Your task to perform on an android device: toggle sleep mode Image 0: 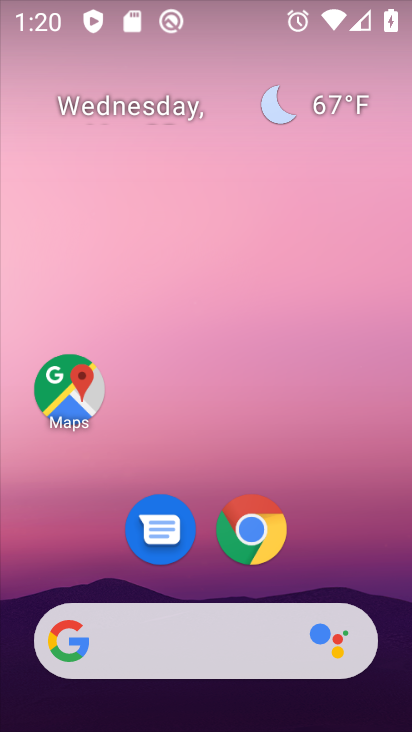
Step 0: drag from (324, 570) to (257, 147)
Your task to perform on an android device: toggle sleep mode Image 1: 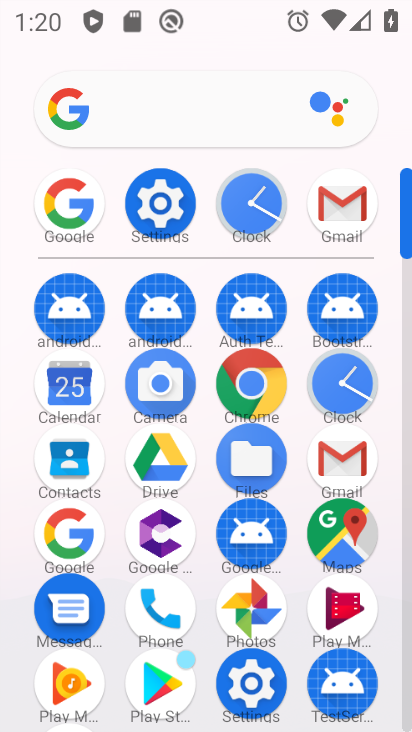
Step 1: click (160, 204)
Your task to perform on an android device: toggle sleep mode Image 2: 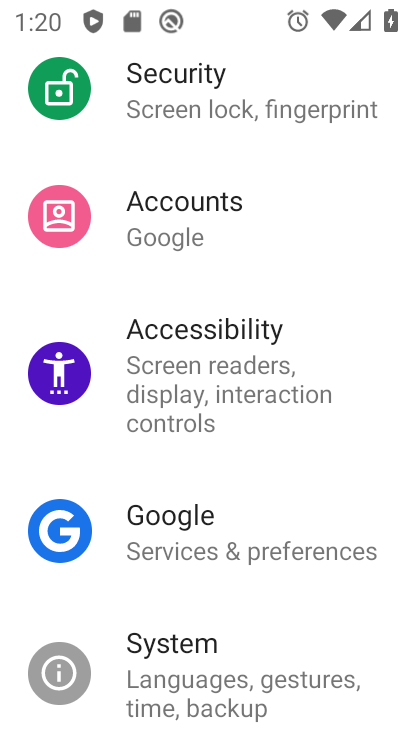
Step 2: drag from (195, 287) to (245, 461)
Your task to perform on an android device: toggle sleep mode Image 3: 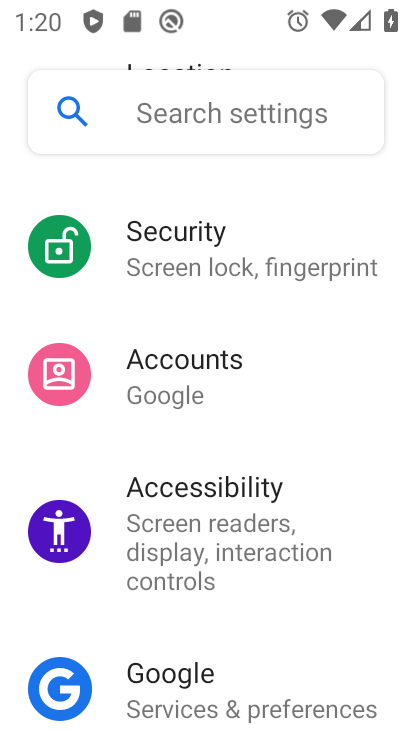
Step 3: drag from (217, 197) to (256, 361)
Your task to perform on an android device: toggle sleep mode Image 4: 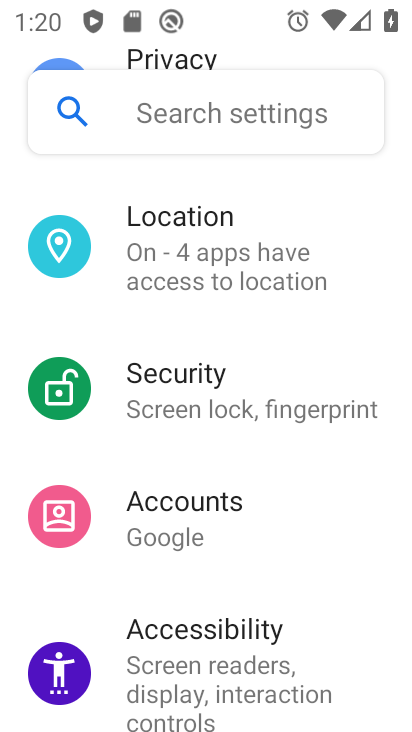
Step 4: drag from (228, 192) to (230, 394)
Your task to perform on an android device: toggle sleep mode Image 5: 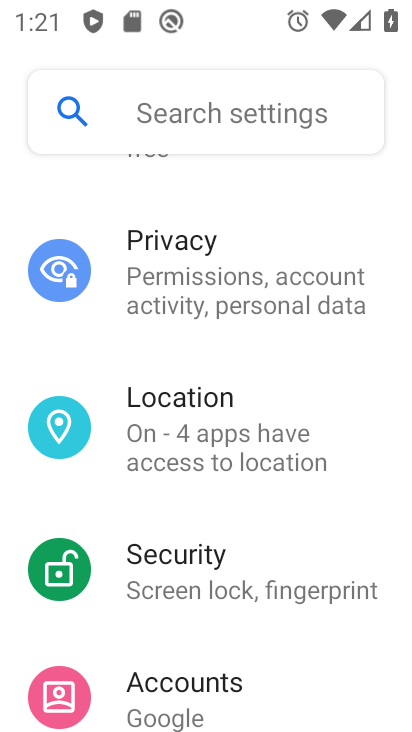
Step 5: drag from (200, 217) to (233, 374)
Your task to perform on an android device: toggle sleep mode Image 6: 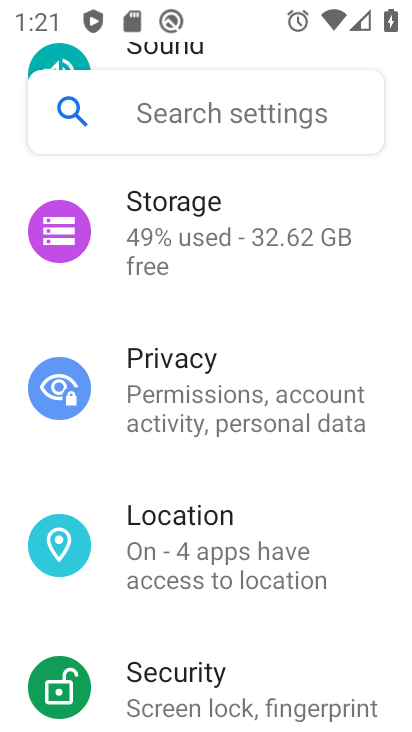
Step 6: drag from (207, 175) to (240, 320)
Your task to perform on an android device: toggle sleep mode Image 7: 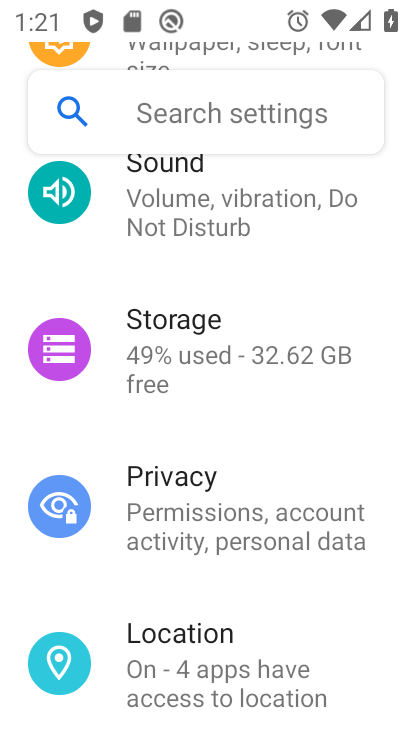
Step 7: drag from (245, 297) to (315, 492)
Your task to perform on an android device: toggle sleep mode Image 8: 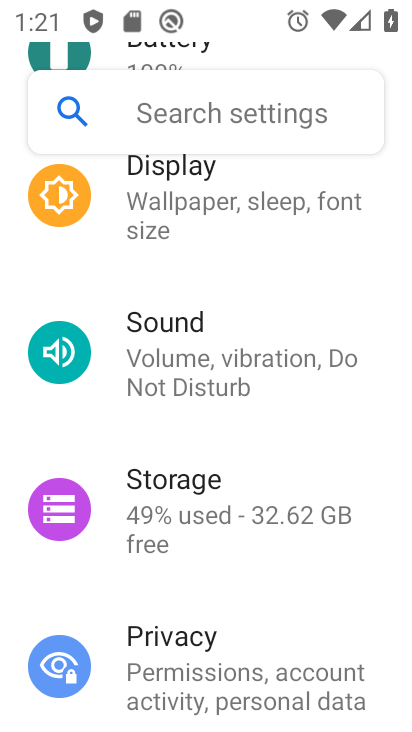
Step 8: drag from (274, 322) to (282, 474)
Your task to perform on an android device: toggle sleep mode Image 9: 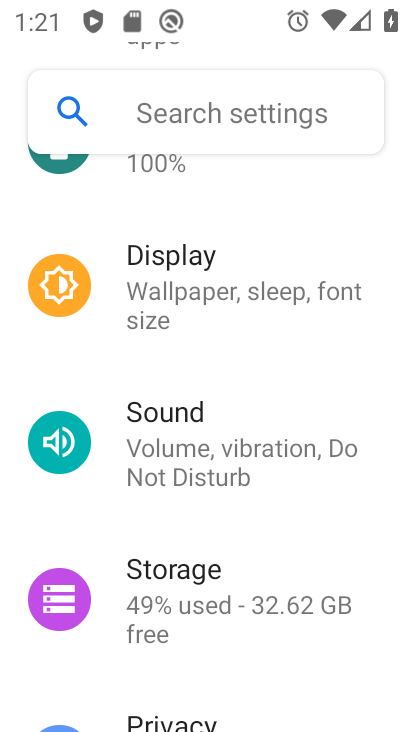
Step 9: click (243, 286)
Your task to perform on an android device: toggle sleep mode Image 10: 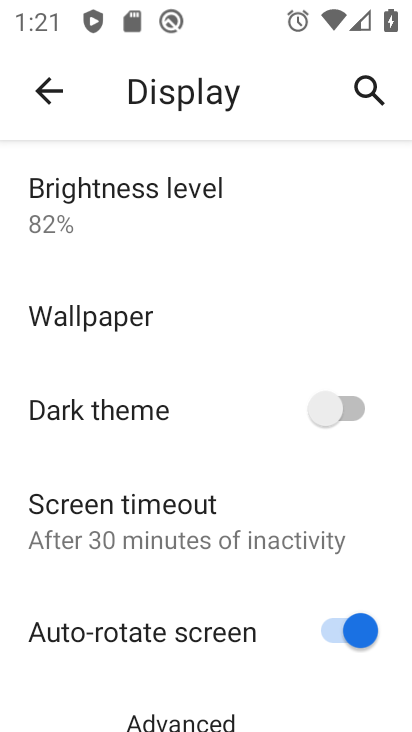
Step 10: drag from (96, 375) to (122, 262)
Your task to perform on an android device: toggle sleep mode Image 11: 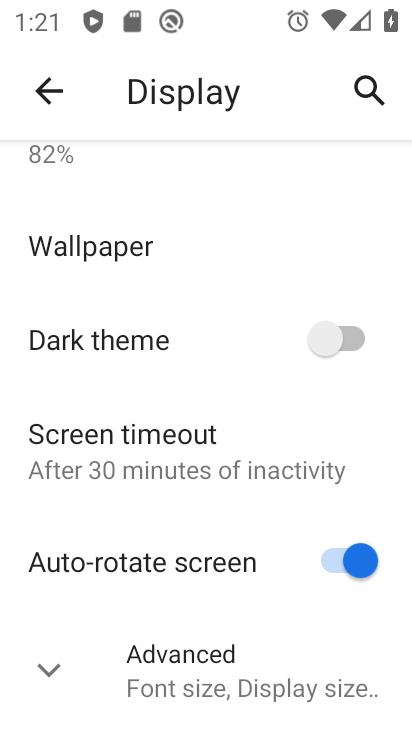
Step 11: drag from (125, 384) to (131, 285)
Your task to perform on an android device: toggle sleep mode Image 12: 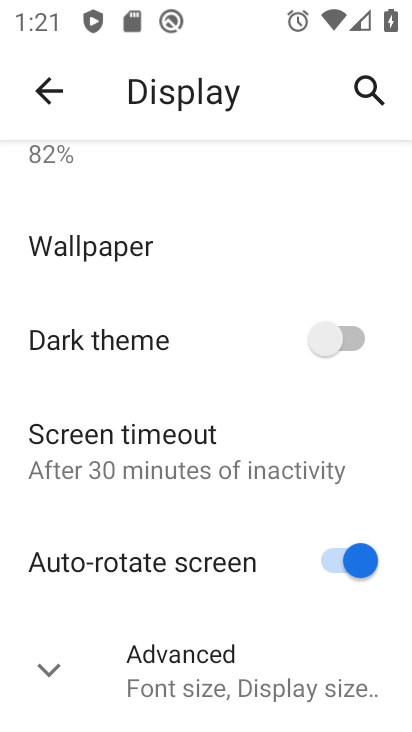
Step 12: click (166, 426)
Your task to perform on an android device: toggle sleep mode Image 13: 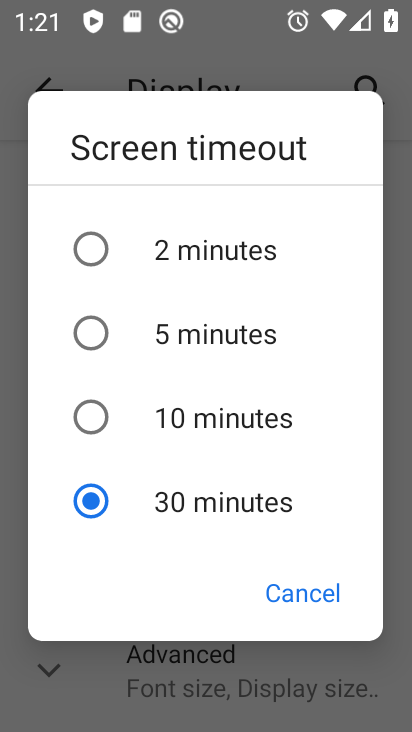
Step 13: click (287, 583)
Your task to perform on an android device: toggle sleep mode Image 14: 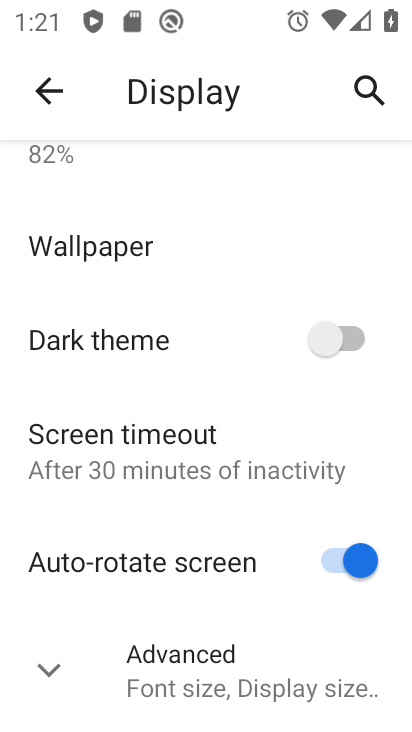
Step 14: drag from (205, 587) to (190, 416)
Your task to perform on an android device: toggle sleep mode Image 15: 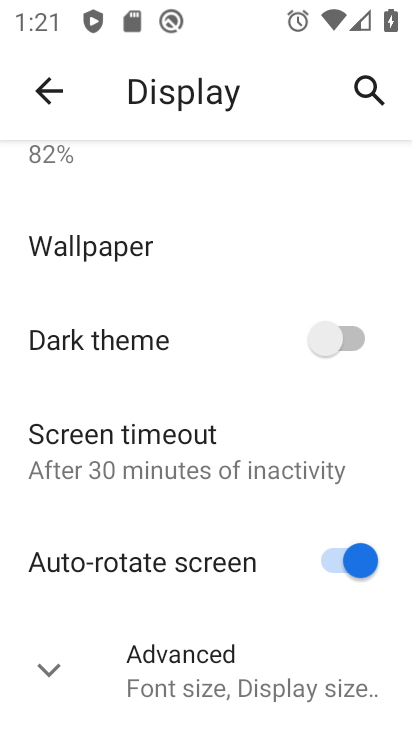
Step 15: click (211, 639)
Your task to perform on an android device: toggle sleep mode Image 16: 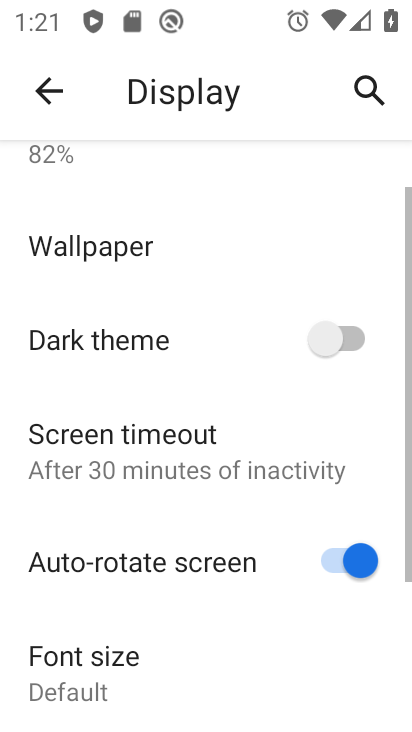
Step 16: task complete